Your task to perform on an android device: allow cookies in the chrome app Image 0: 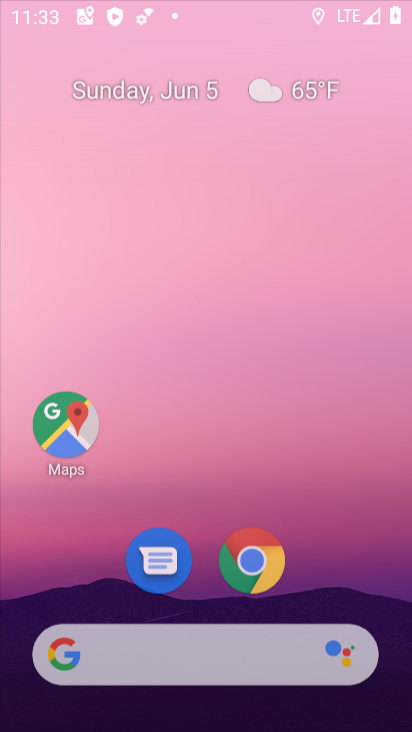
Step 0: click (226, 295)
Your task to perform on an android device: allow cookies in the chrome app Image 1: 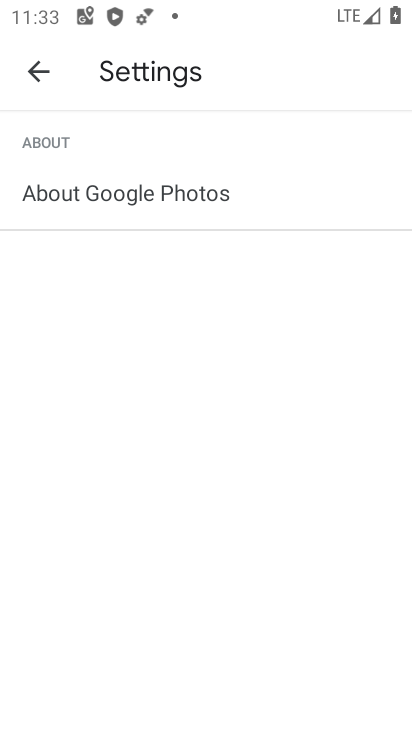
Step 1: press home button
Your task to perform on an android device: allow cookies in the chrome app Image 2: 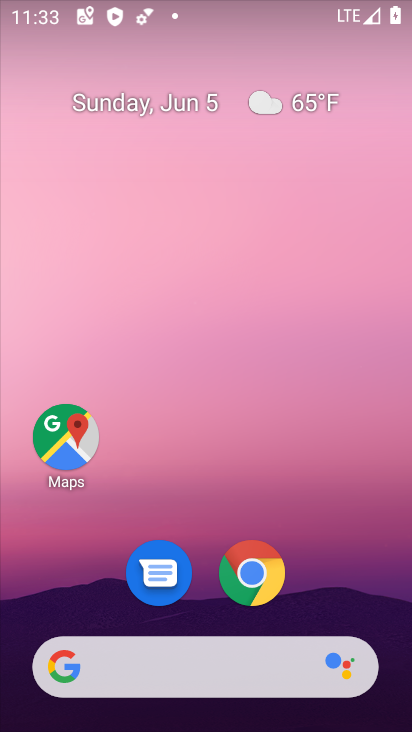
Step 2: drag from (247, 509) to (254, 62)
Your task to perform on an android device: allow cookies in the chrome app Image 3: 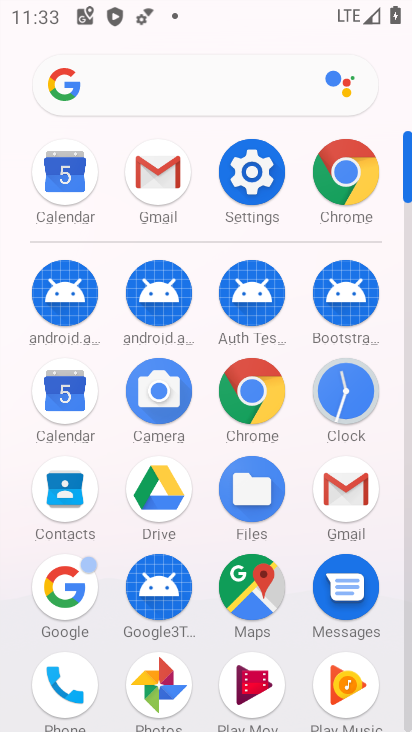
Step 3: click (251, 415)
Your task to perform on an android device: allow cookies in the chrome app Image 4: 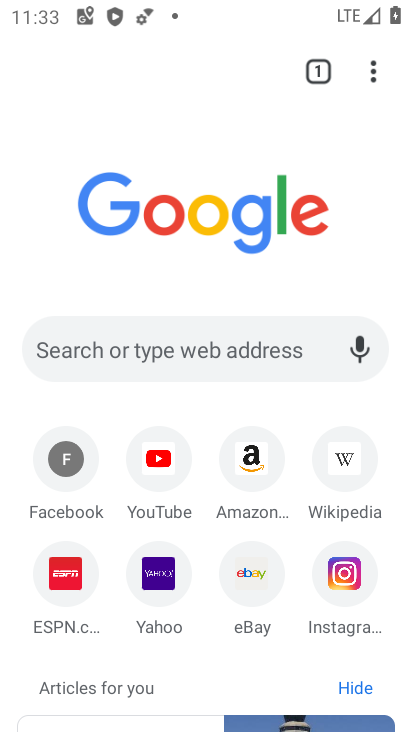
Step 4: click (364, 84)
Your task to perform on an android device: allow cookies in the chrome app Image 5: 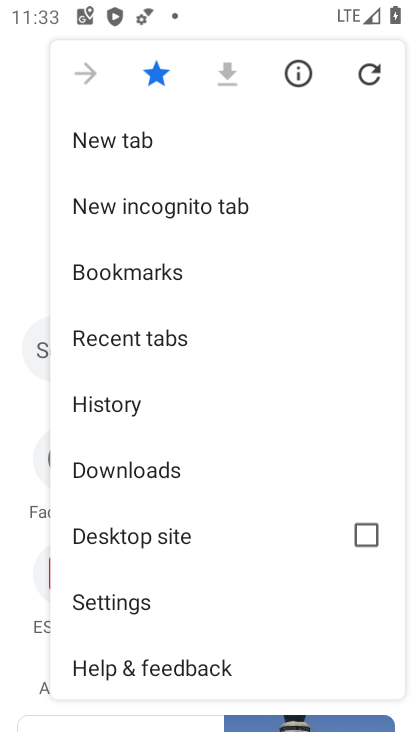
Step 5: click (163, 612)
Your task to perform on an android device: allow cookies in the chrome app Image 6: 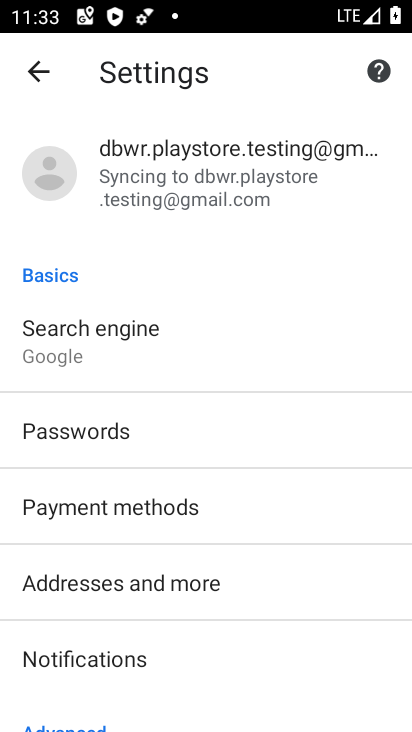
Step 6: drag from (135, 679) to (252, 201)
Your task to perform on an android device: allow cookies in the chrome app Image 7: 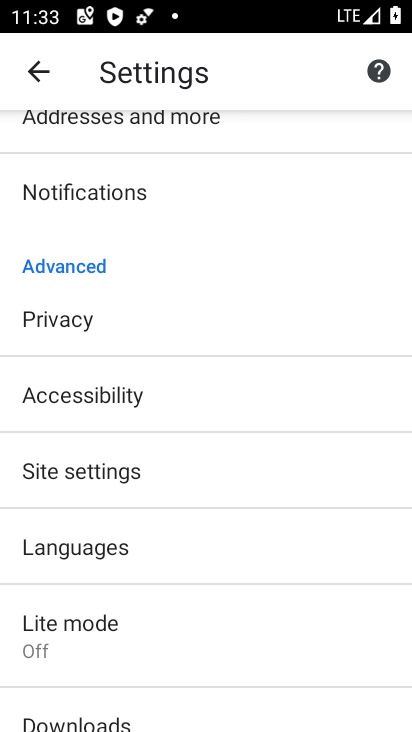
Step 7: click (109, 471)
Your task to perform on an android device: allow cookies in the chrome app Image 8: 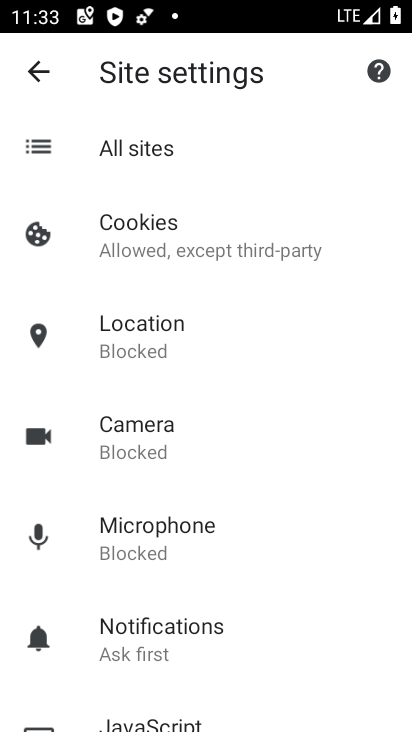
Step 8: click (200, 240)
Your task to perform on an android device: allow cookies in the chrome app Image 9: 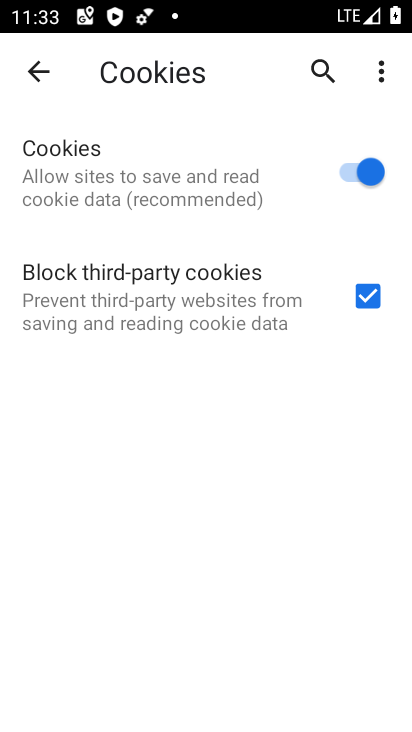
Step 9: task complete